Your task to perform on an android device: turn off javascript in the chrome app Image 0: 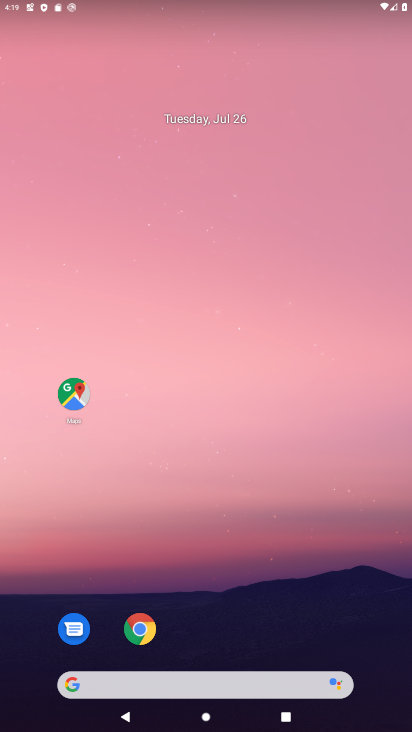
Step 0: press home button
Your task to perform on an android device: turn off javascript in the chrome app Image 1: 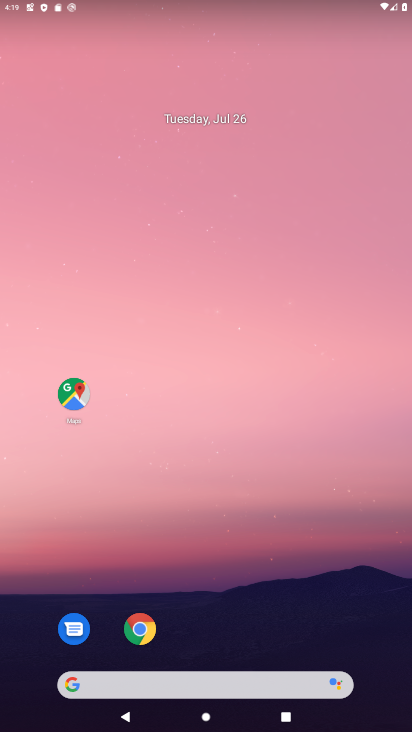
Step 1: click (144, 632)
Your task to perform on an android device: turn off javascript in the chrome app Image 2: 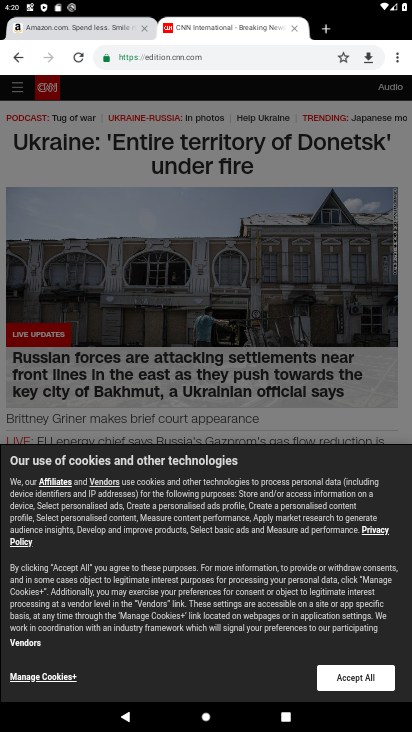
Step 2: click (405, 56)
Your task to perform on an android device: turn off javascript in the chrome app Image 3: 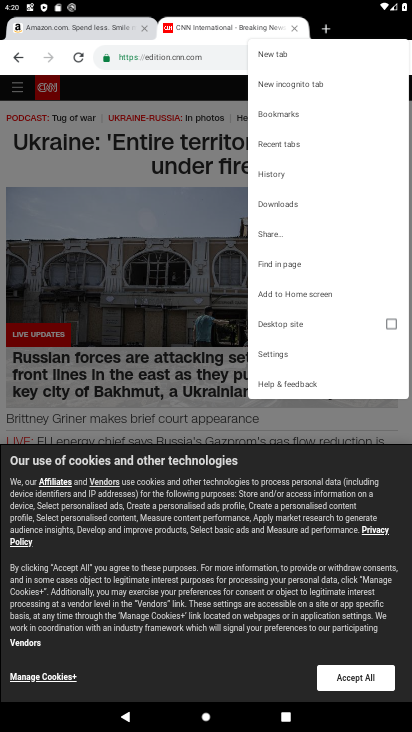
Step 3: click (300, 349)
Your task to perform on an android device: turn off javascript in the chrome app Image 4: 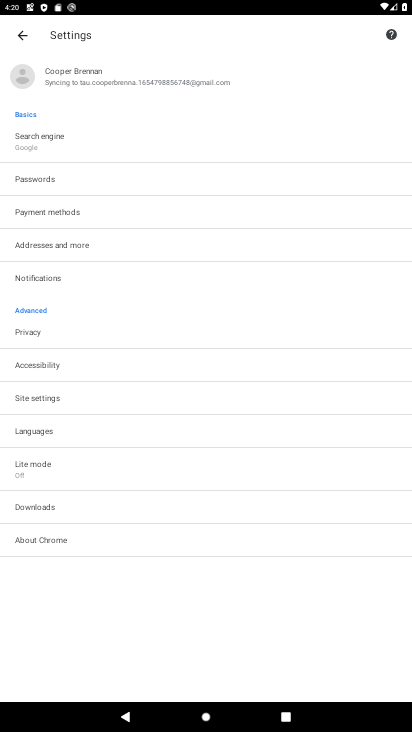
Step 4: click (41, 399)
Your task to perform on an android device: turn off javascript in the chrome app Image 5: 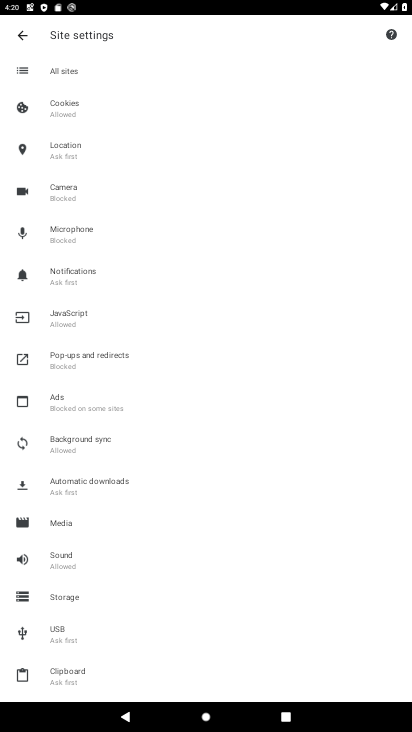
Step 5: click (121, 318)
Your task to perform on an android device: turn off javascript in the chrome app Image 6: 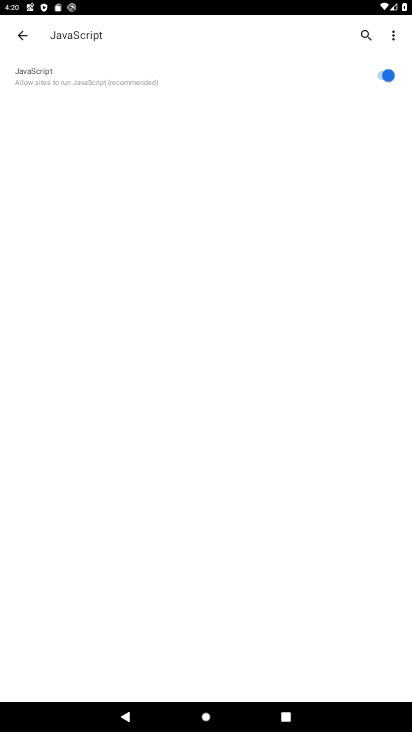
Step 6: click (387, 77)
Your task to perform on an android device: turn off javascript in the chrome app Image 7: 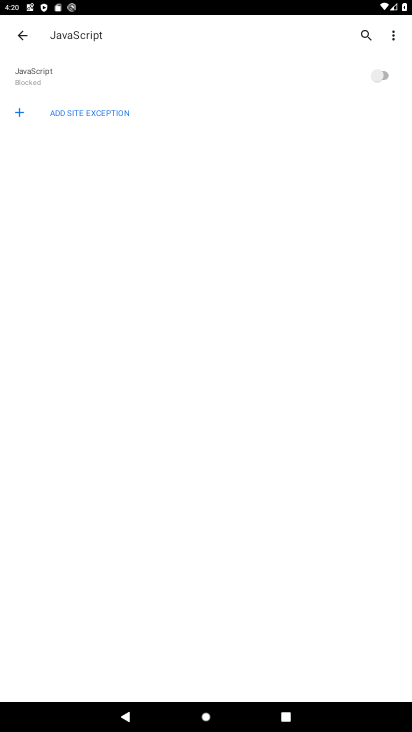
Step 7: task complete